Your task to perform on an android device: open a bookmark in the chrome app Image 0: 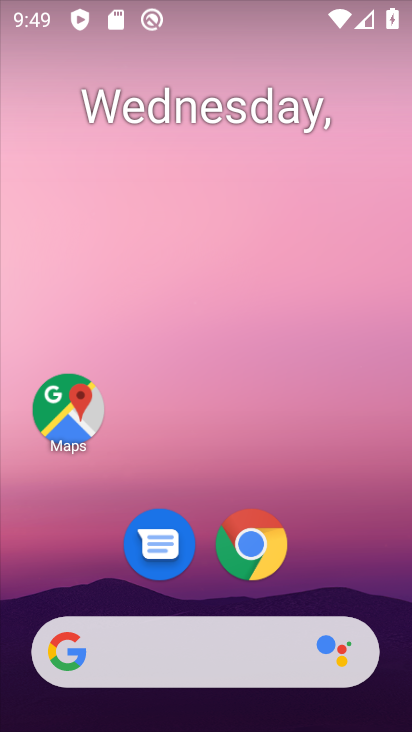
Step 0: click (250, 541)
Your task to perform on an android device: open a bookmark in the chrome app Image 1: 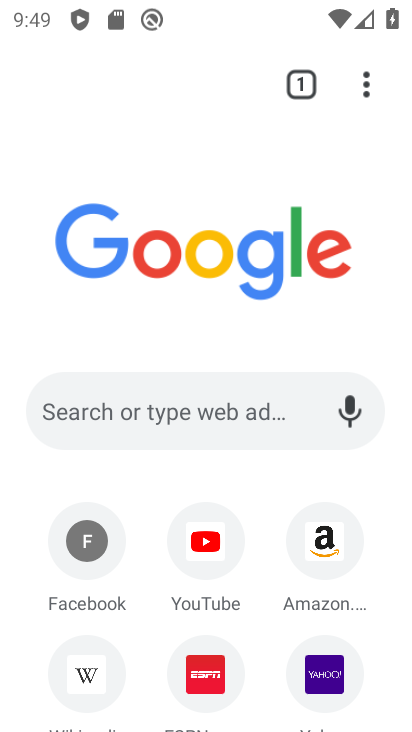
Step 1: task complete